Your task to perform on an android device: open wifi settings Image 0: 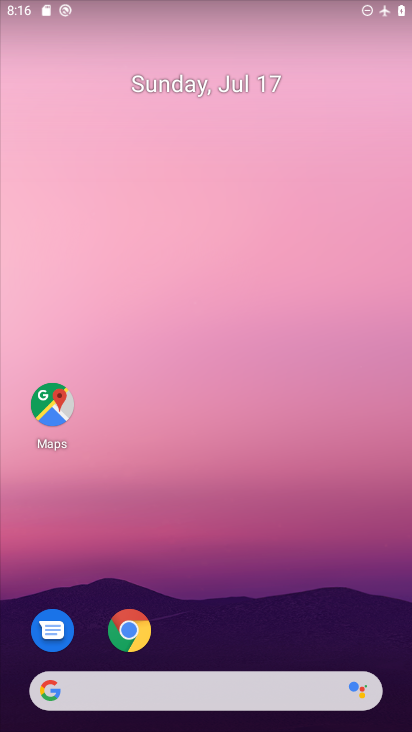
Step 0: drag from (287, 591) to (284, 180)
Your task to perform on an android device: open wifi settings Image 1: 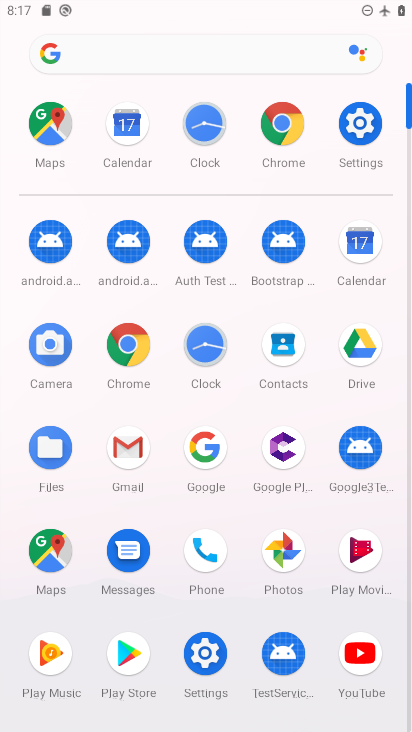
Step 1: click (362, 123)
Your task to perform on an android device: open wifi settings Image 2: 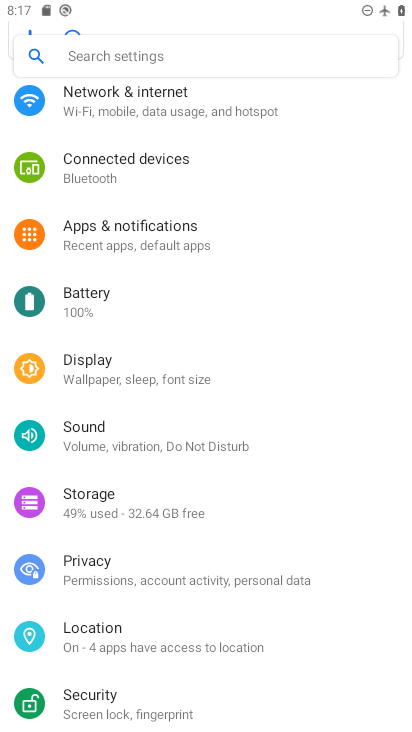
Step 2: click (144, 106)
Your task to perform on an android device: open wifi settings Image 3: 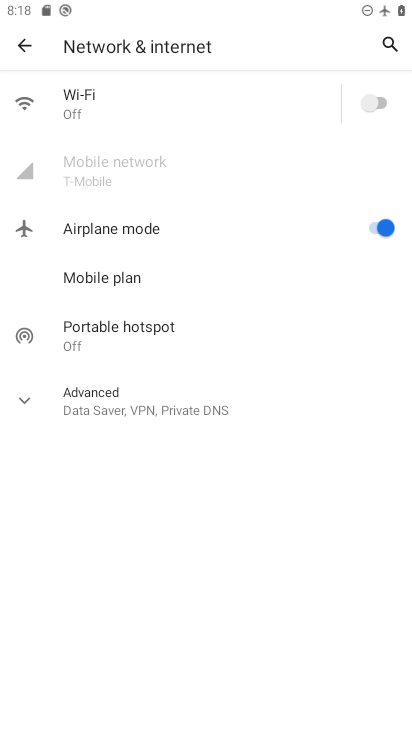
Step 3: click (229, 90)
Your task to perform on an android device: open wifi settings Image 4: 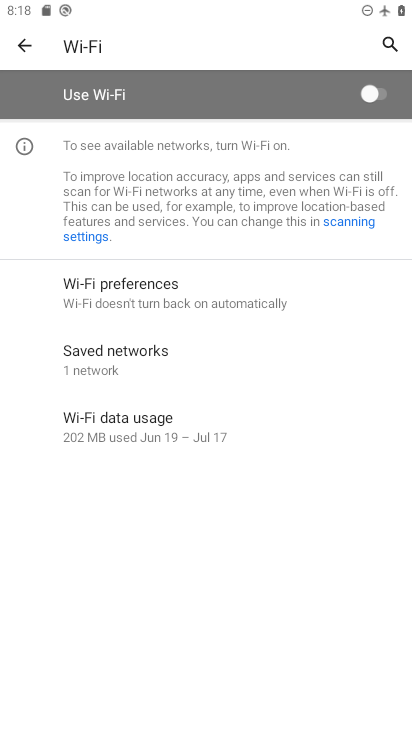
Step 4: task complete